Your task to perform on an android device: open the mobile data screen to see how much data has been used Image 0: 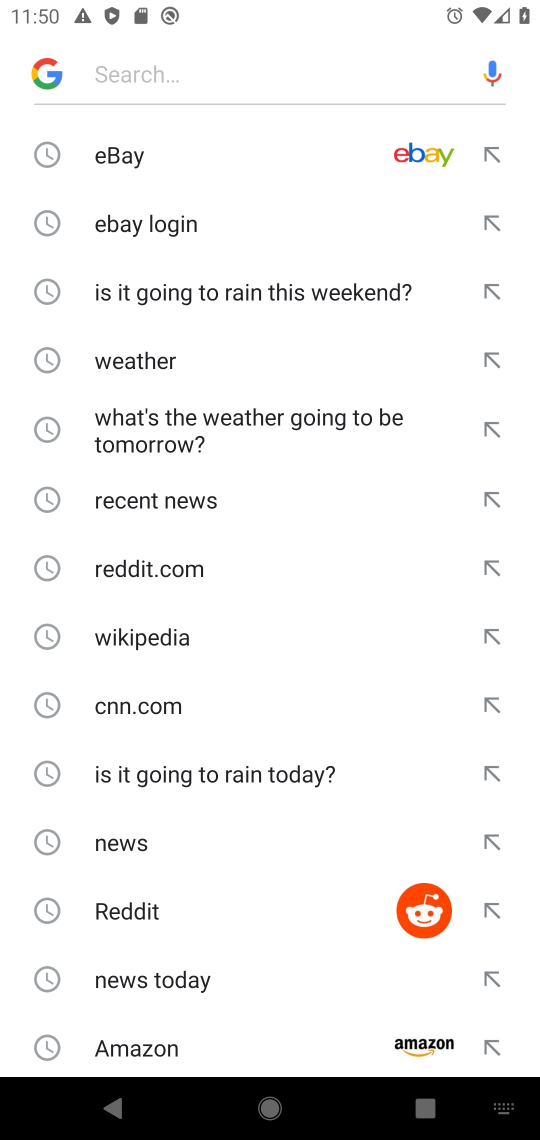
Step 0: press home button
Your task to perform on an android device: open the mobile data screen to see how much data has been used Image 1: 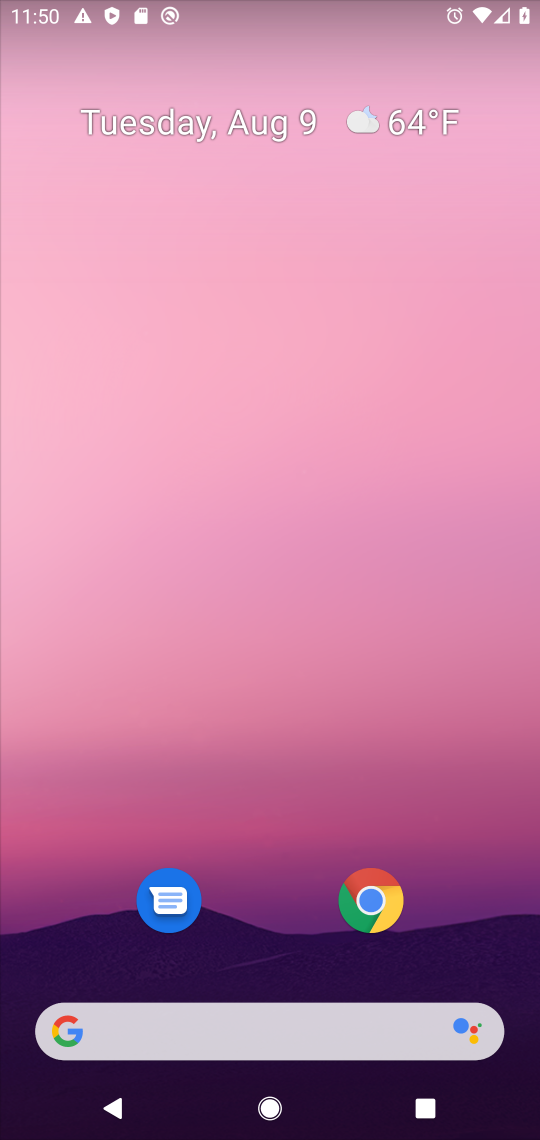
Step 1: drag from (300, 411) to (326, 4)
Your task to perform on an android device: open the mobile data screen to see how much data has been used Image 2: 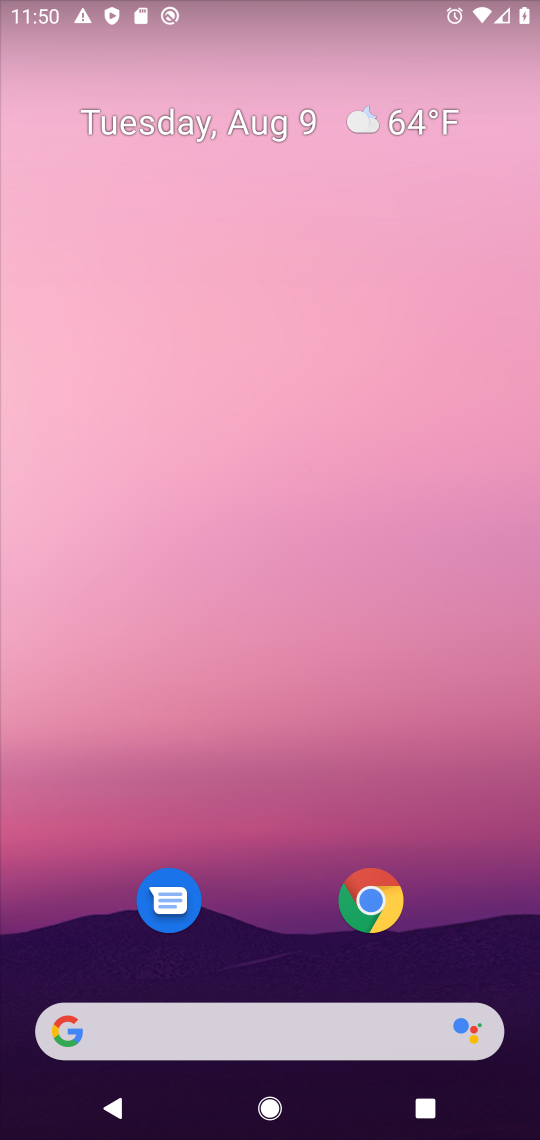
Step 2: drag from (272, 895) to (248, 0)
Your task to perform on an android device: open the mobile data screen to see how much data has been used Image 3: 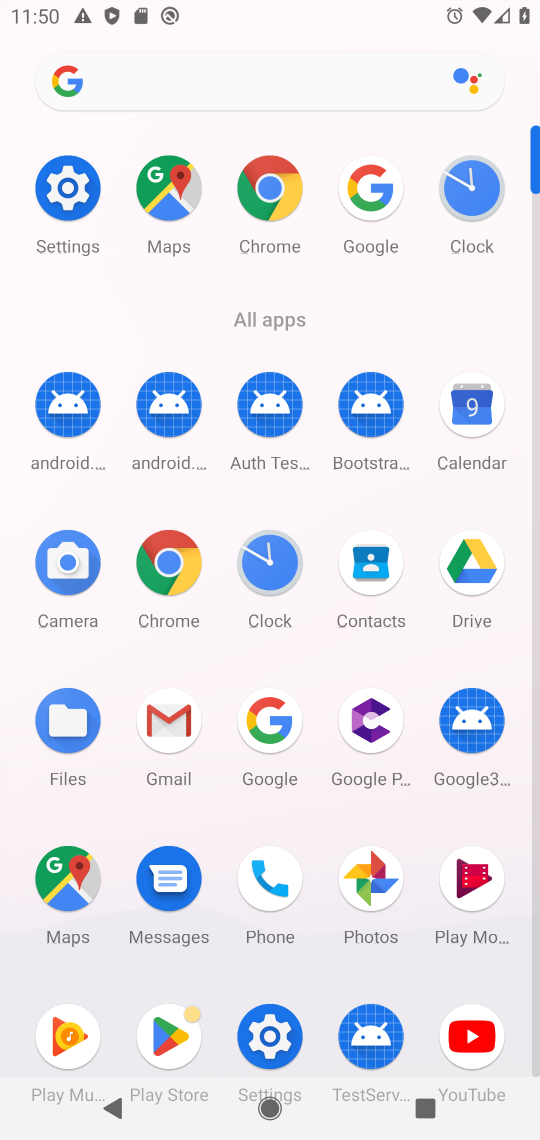
Step 3: click (72, 190)
Your task to perform on an android device: open the mobile data screen to see how much data has been used Image 4: 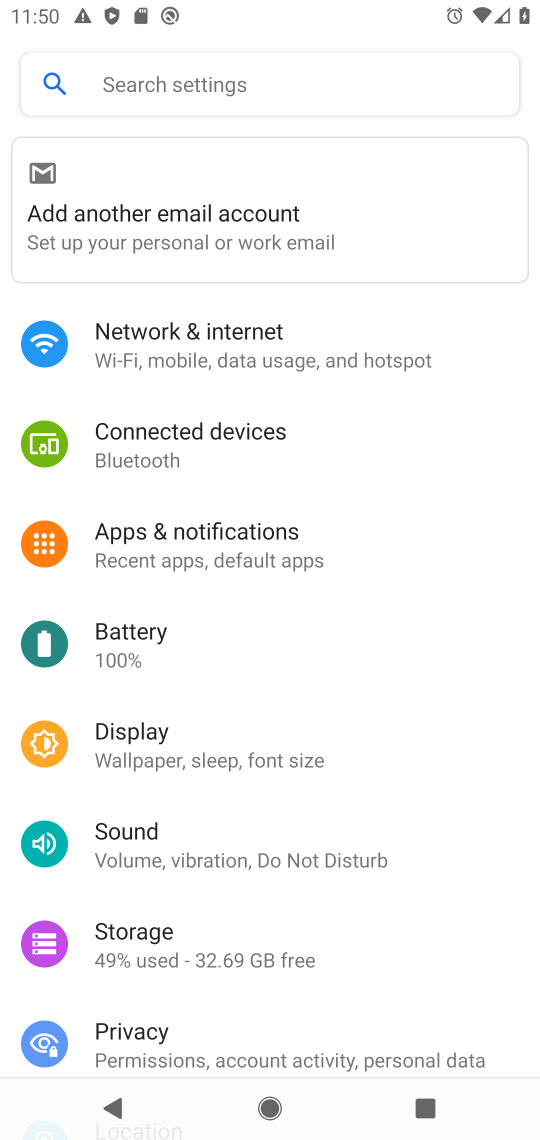
Step 4: click (164, 345)
Your task to perform on an android device: open the mobile data screen to see how much data has been used Image 5: 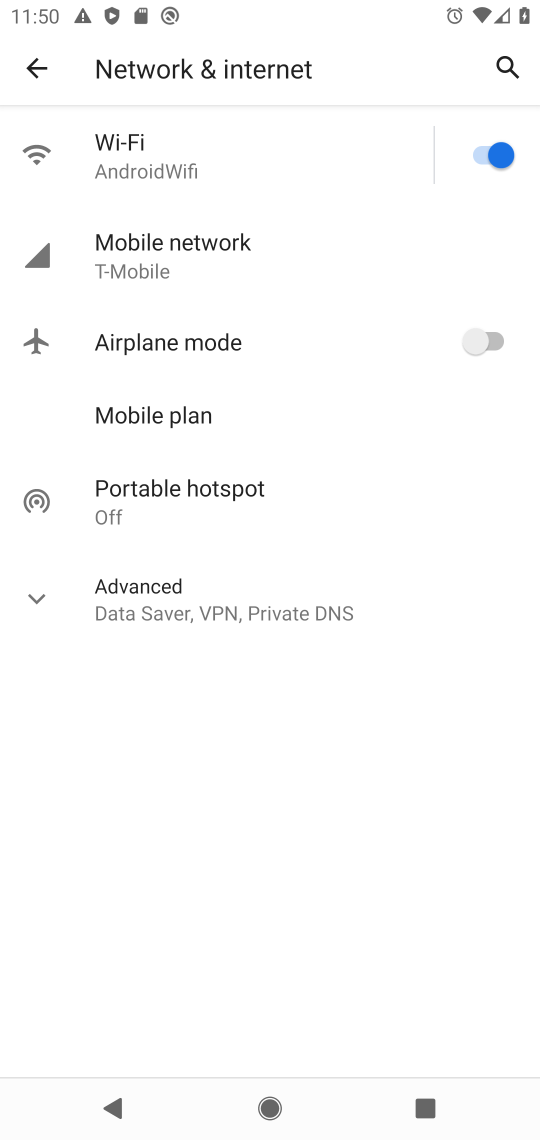
Step 5: click (166, 253)
Your task to perform on an android device: open the mobile data screen to see how much data has been used Image 6: 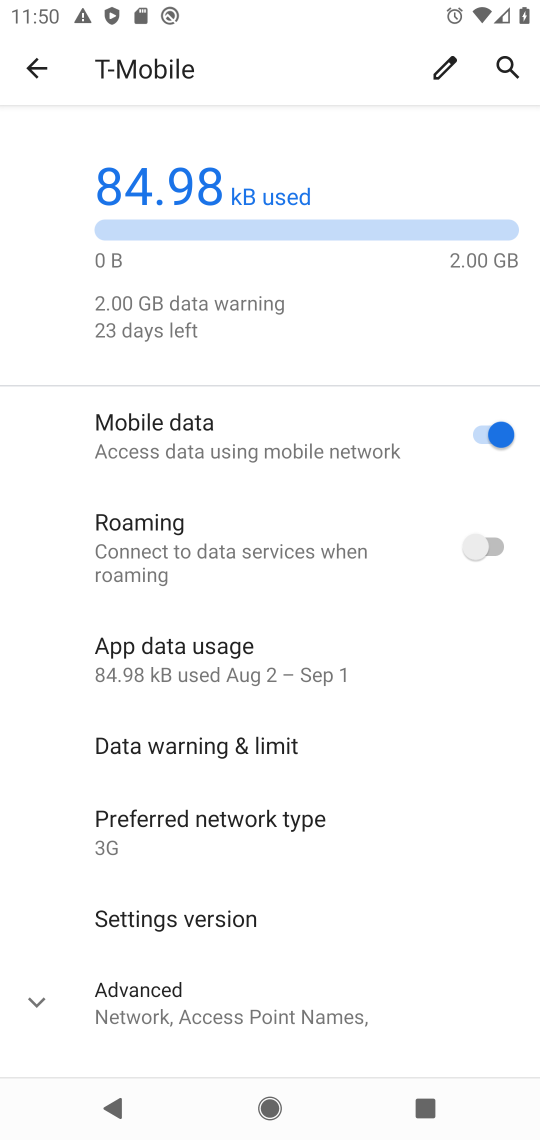
Step 6: task complete